Your task to perform on an android device: Turn off the flashlight Image 0: 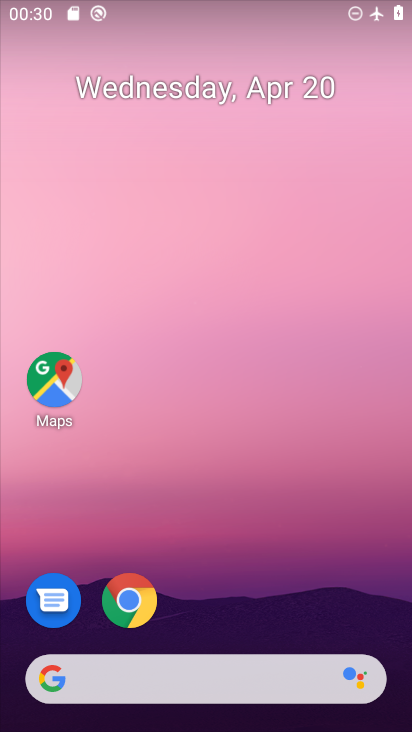
Step 0: drag from (363, 490) to (375, 131)
Your task to perform on an android device: Turn off the flashlight Image 1: 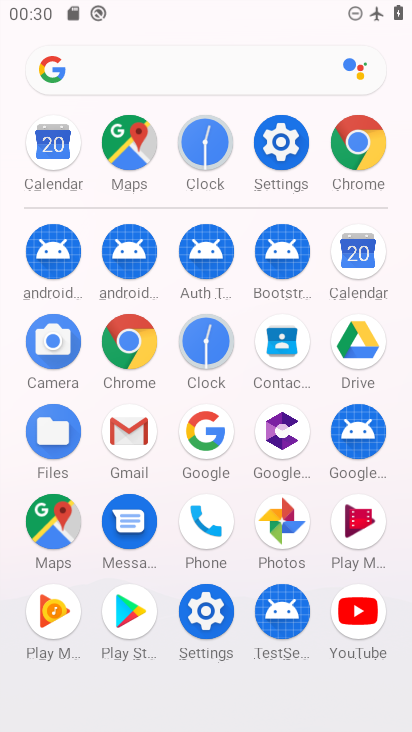
Step 1: click (271, 136)
Your task to perform on an android device: Turn off the flashlight Image 2: 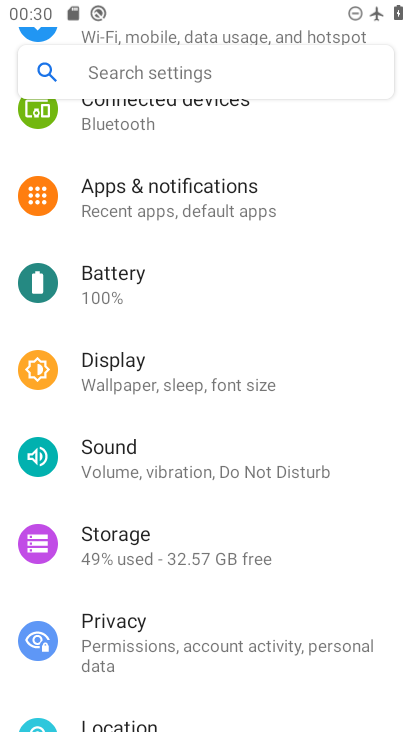
Step 2: drag from (277, 156) to (311, 496)
Your task to perform on an android device: Turn off the flashlight Image 3: 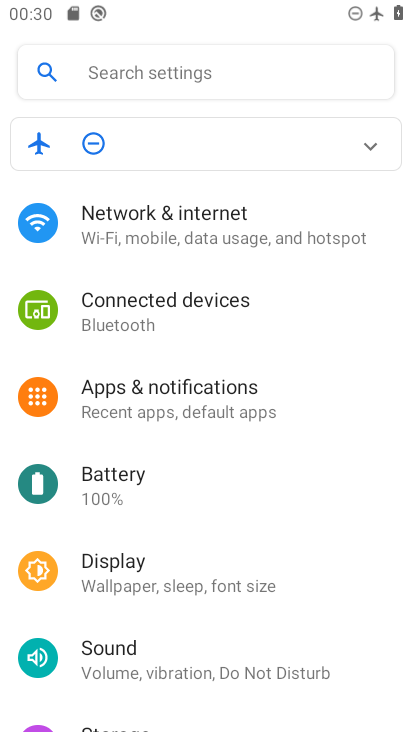
Step 3: click (186, 58)
Your task to perform on an android device: Turn off the flashlight Image 4: 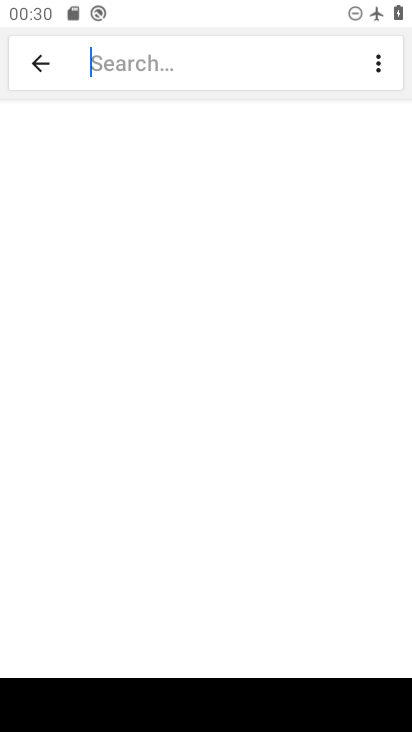
Step 4: type "flashlight"
Your task to perform on an android device: Turn off the flashlight Image 5: 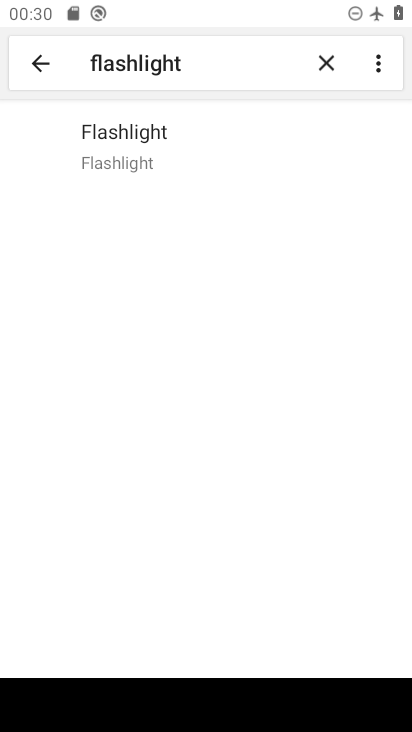
Step 5: click (149, 124)
Your task to perform on an android device: Turn off the flashlight Image 6: 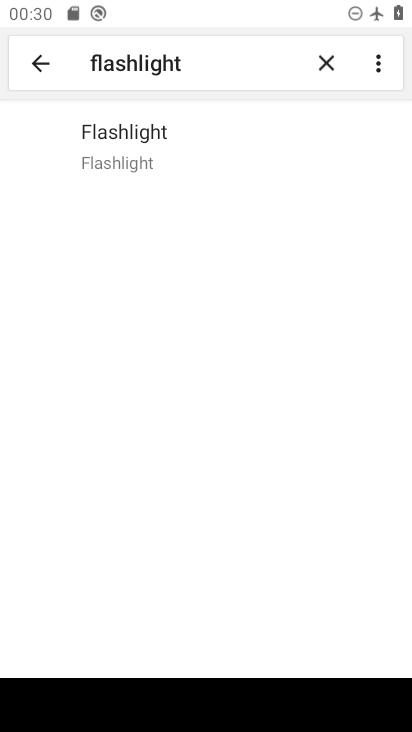
Step 6: task complete